Your task to perform on an android device: turn on notifications settings in the gmail app Image 0: 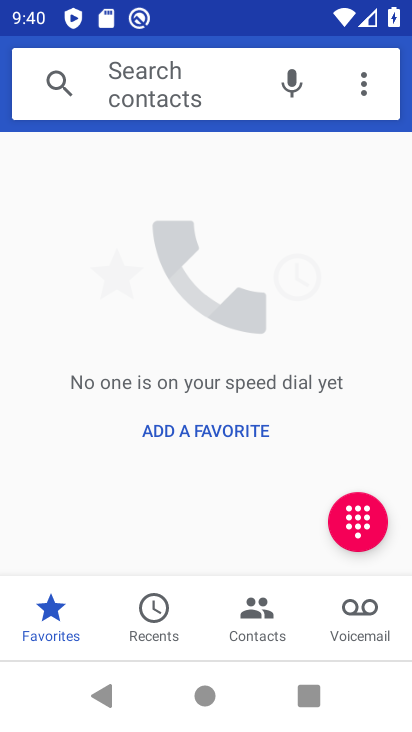
Step 0: press home button
Your task to perform on an android device: turn on notifications settings in the gmail app Image 1: 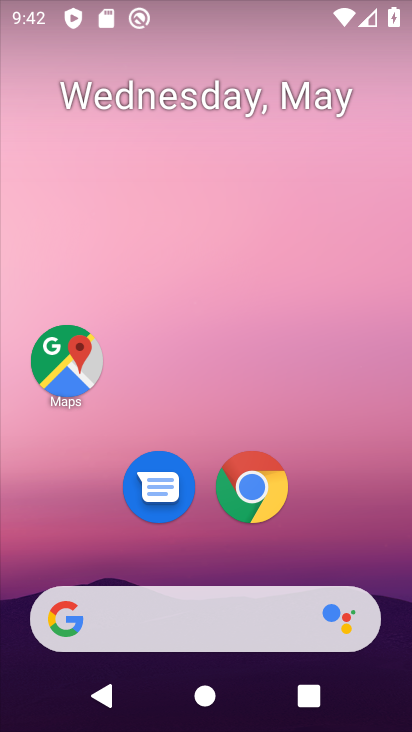
Step 1: drag from (285, 653) to (299, 99)
Your task to perform on an android device: turn on notifications settings in the gmail app Image 2: 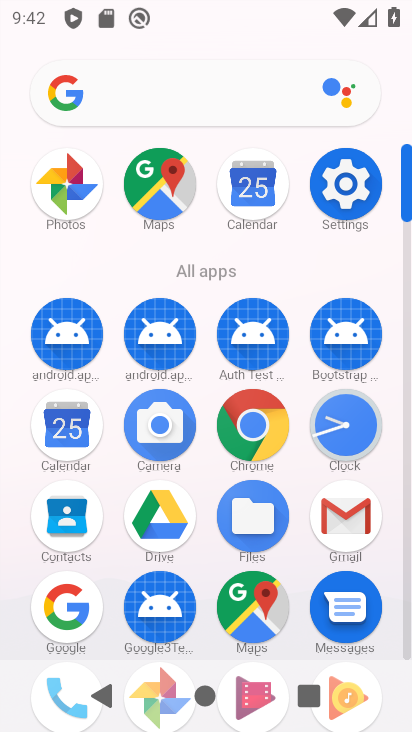
Step 2: click (374, 526)
Your task to perform on an android device: turn on notifications settings in the gmail app Image 3: 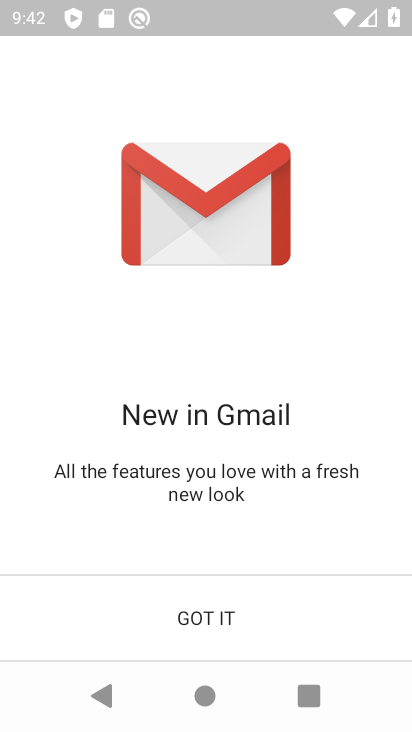
Step 3: click (214, 614)
Your task to perform on an android device: turn on notifications settings in the gmail app Image 4: 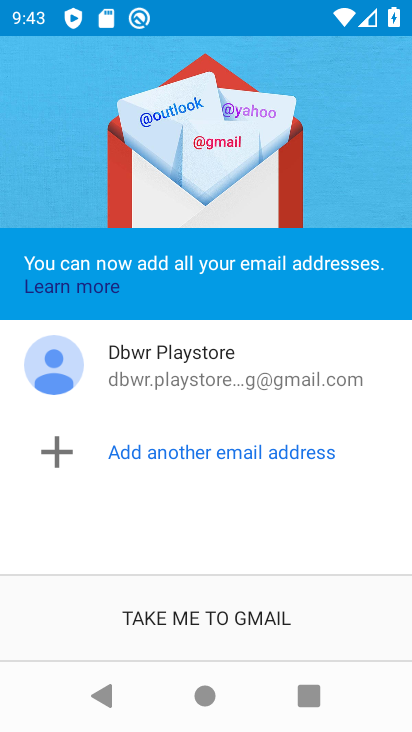
Step 4: click (180, 618)
Your task to perform on an android device: turn on notifications settings in the gmail app Image 5: 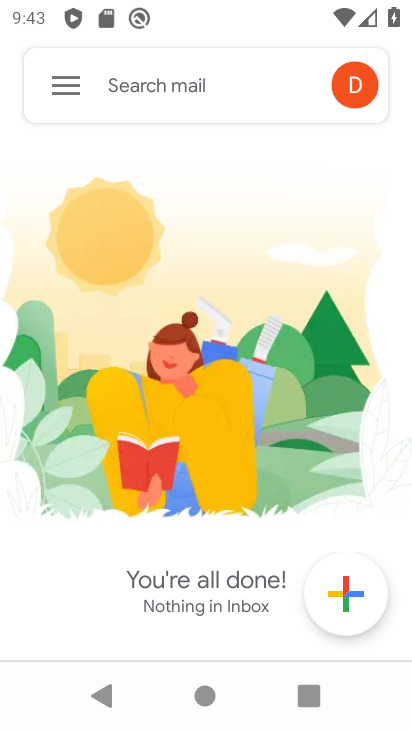
Step 5: click (48, 91)
Your task to perform on an android device: turn on notifications settings in the gmail app Image 6: 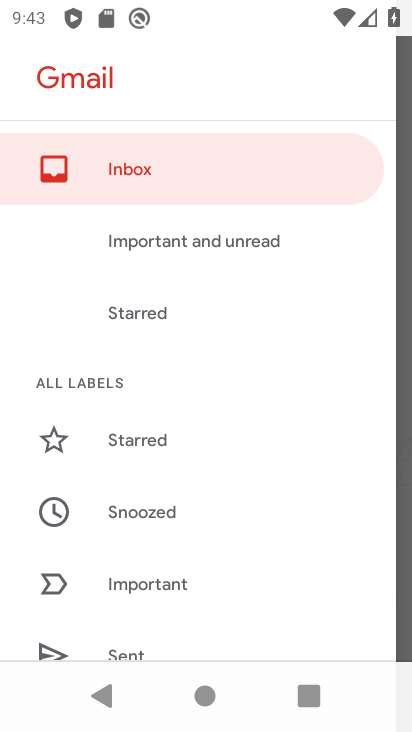
Step 6: drag from (157, 494) to (192, 321)
Your task to perform on an android device: turn on notifications settings in the gmail app Image 7: 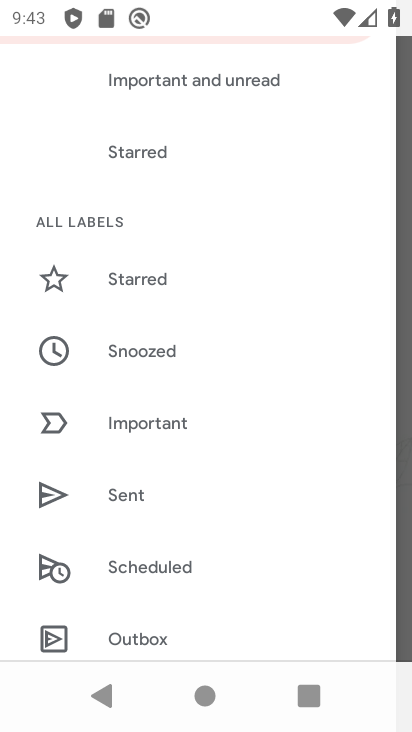
Step 7: drag from (138, 516) to (164, 235)
Your task to perform on an android device: turn on notifications settings in the gmail app Image 8: 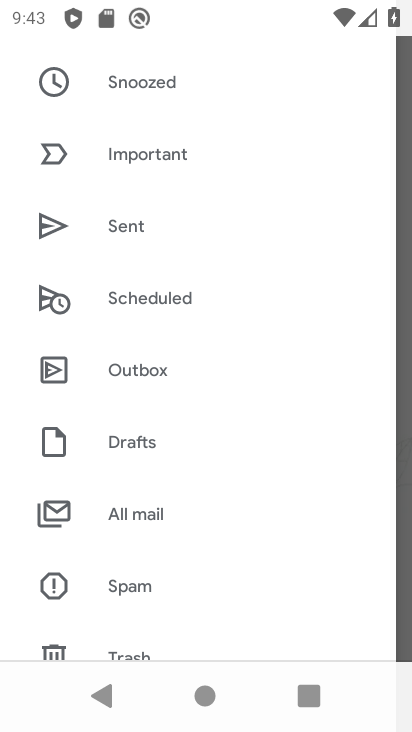
Step 8: drag from (149, 561) to (174, 429)
Your task to perform on an android device: turn on notifications settings in the gmail app Image 9: 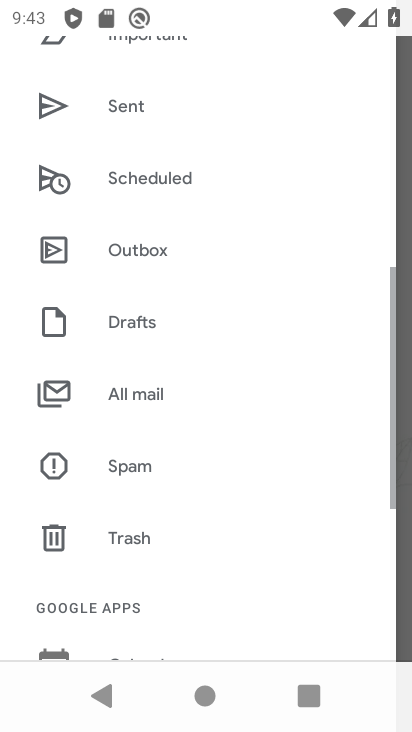
Step 9: drag from (153, 520) to (135, 156)
Your task to perform on an android device: turn on notifications settings in the gmail app Image 10: 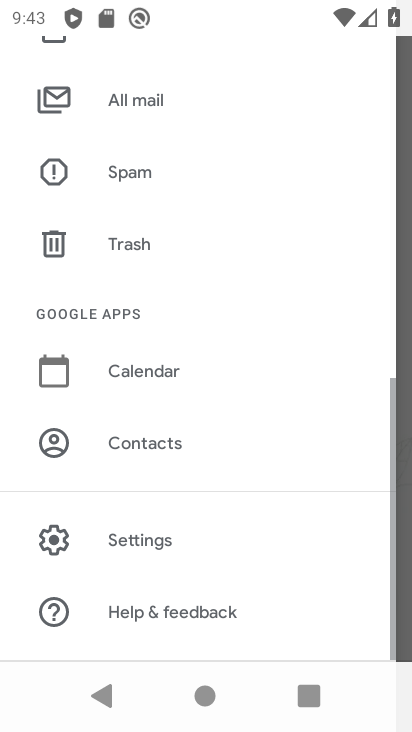
Step 10: click (139, 541)
Your task to perform on an android device: turn on notifications settings in the gmail app Image 11: 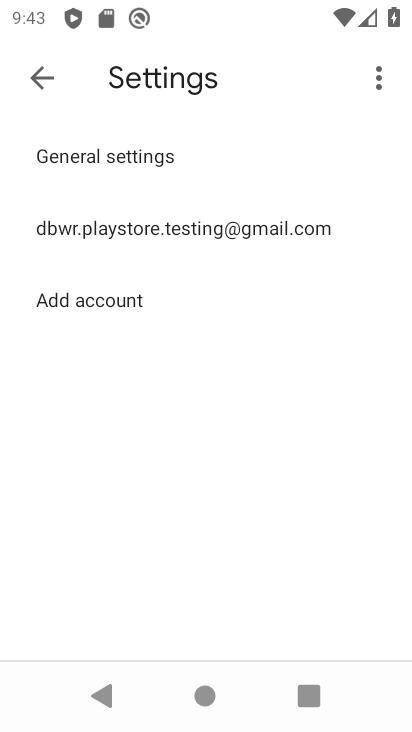
Step 11: click (127, 216)
Your task to perform on an android device: turn on notifications settings in the gmail app Image 12: 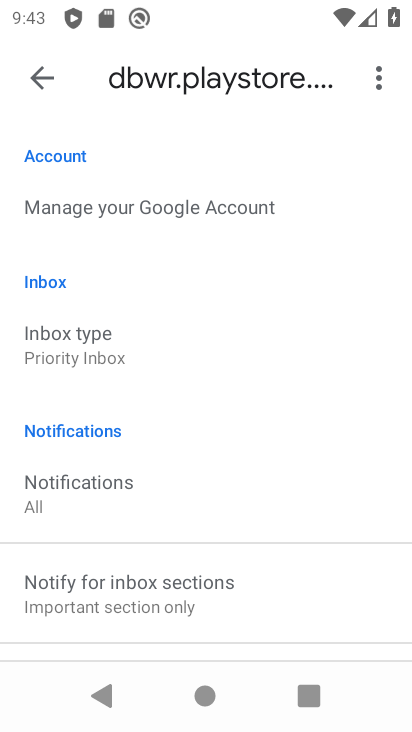
Step 12: click (124, 496)
Your task to perform on an android device: turn on notifications settings in the gmail app Image 13: 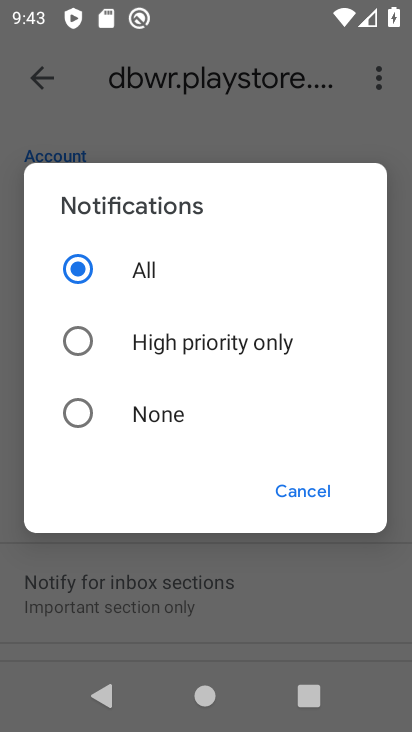
Step 13: task complete